Your task to perform on an android device: Open notification settings Image 0: 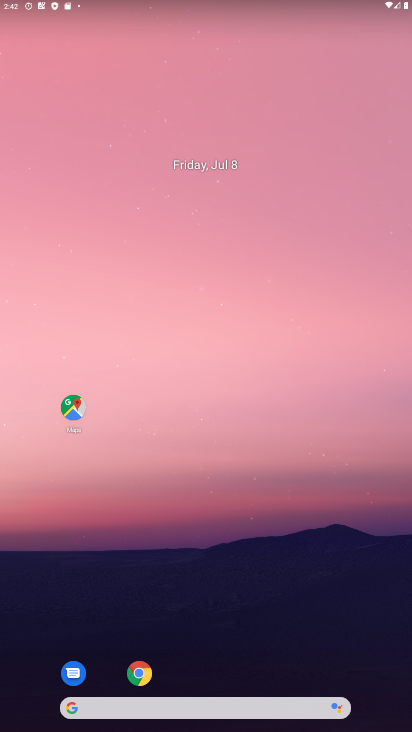
Step 0: press home button
Your task to perform on an android device: Open notification settings Image 1: 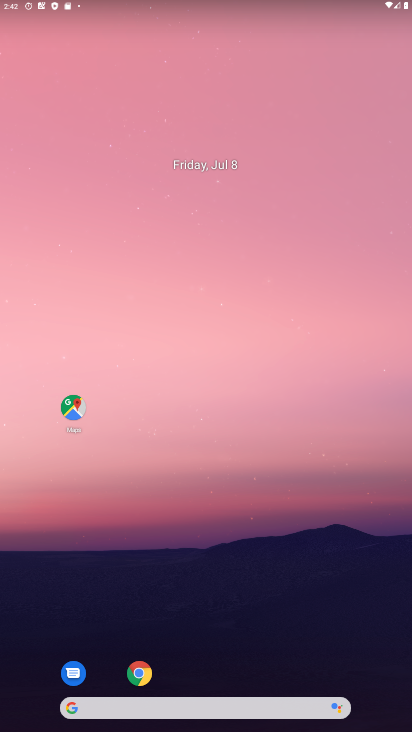
Step 1: drag from (222, 699) to (191, 182)
Your task to perform on an android device: Open notification settings Image 2: 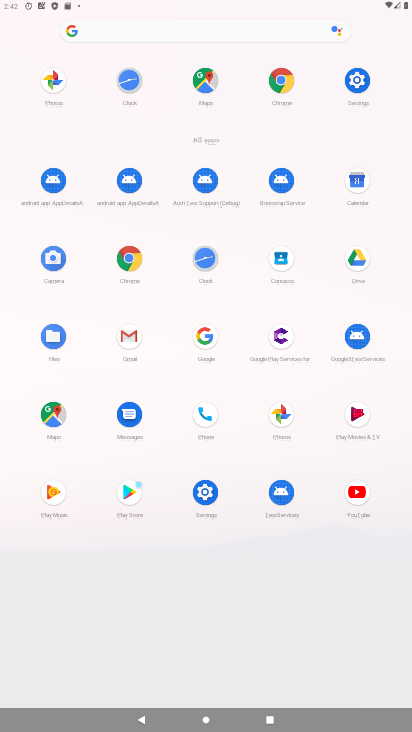
Step 2: click (350, 79)
Your task to perform on an android device: Open notification settings Image 3: 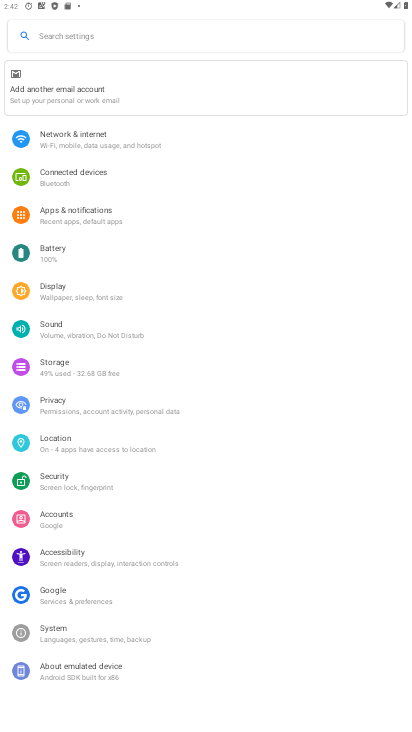
Step 3: click (80, 219)
Your task to perform on an android device: Open notification settings Image 4: 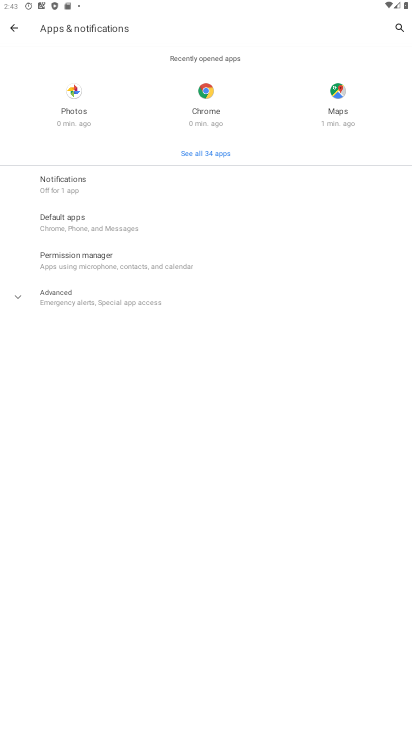
Step 4: task complete